Your task to perform on an android device: turn off priority inbox in the gmail app Image 0: 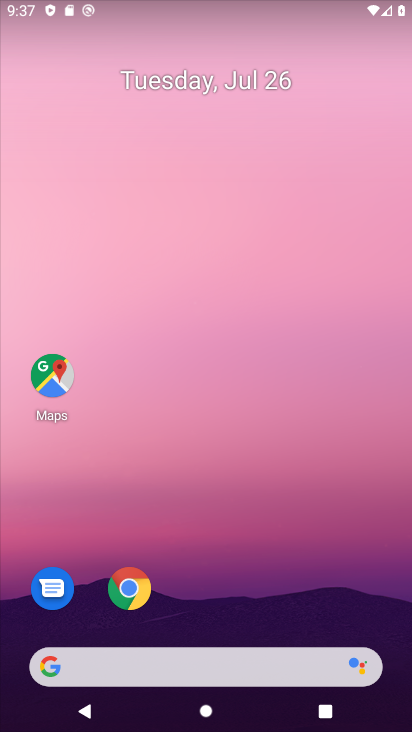
Step 0: drag from (203, 619) to (251, 69)
Your task to perform on an android device: turn off priority inbox in the gmail app Image 1: 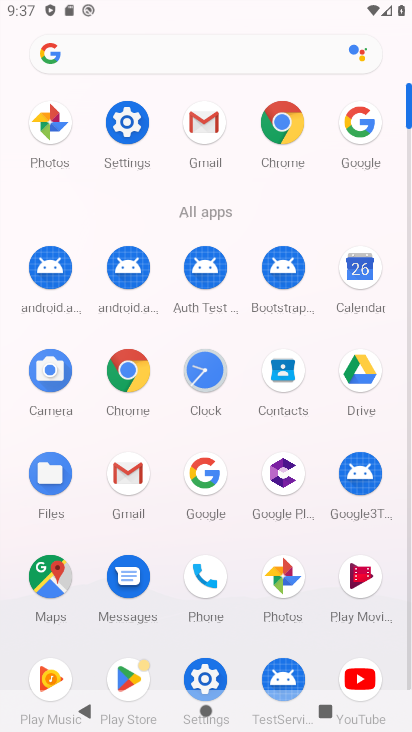
Step 1: click (209, 125)
Your task to perform on an android device: turn off priority inbox in the gmail app Image 2: 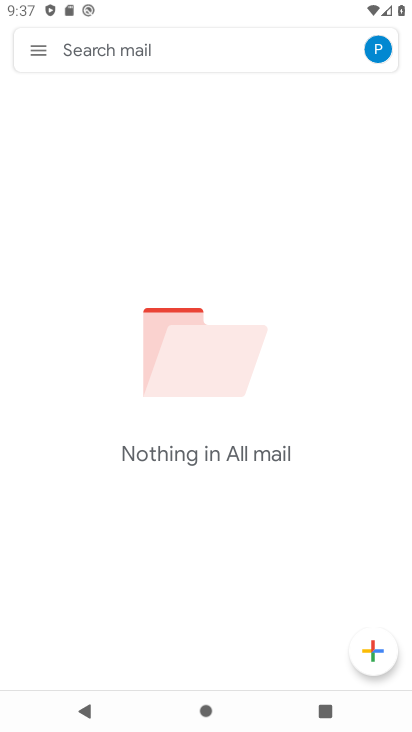
Step 2: click (27, 43)
Your task to perform on an android device: turn off priority inbox in the gmail app Image 3: 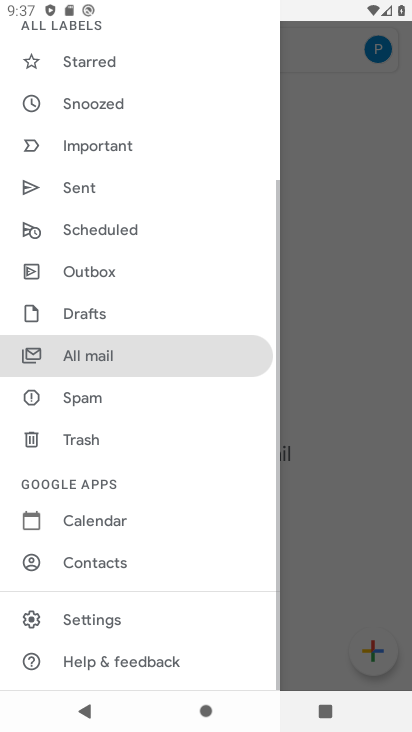
Step 3: click (117, 619)
Your task to perform on an android device: turn off priority inbox in the gmail app Image 4: 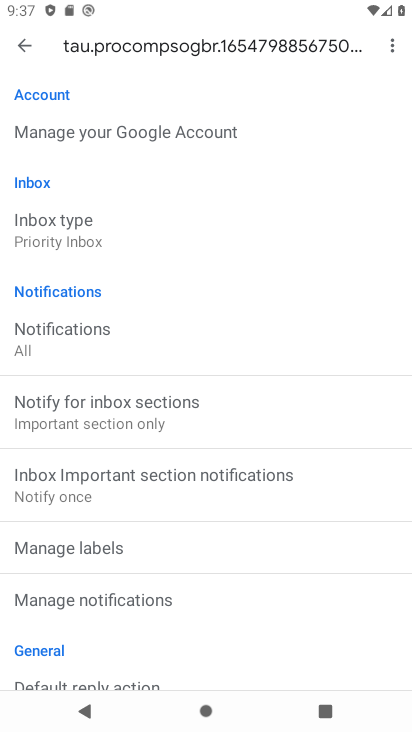
Step 4: click (109, 231)
Your task to perform on an android device: turn off priority inbox in the gmail app Image 5: 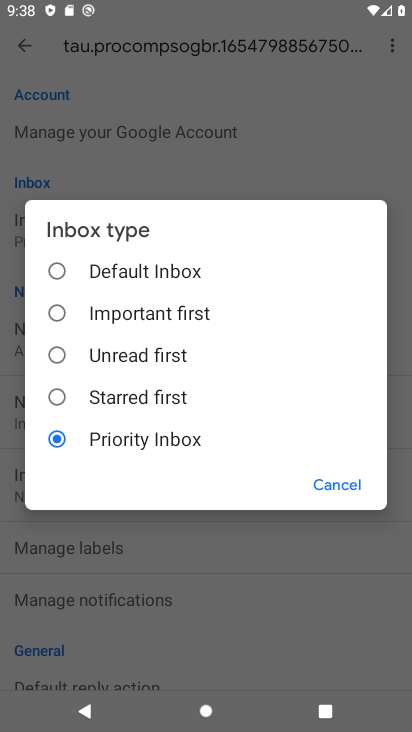
Step 5: click (69, 268)
Your task to perform on an android device: turn off priority inbox in the gmail app Image 6: 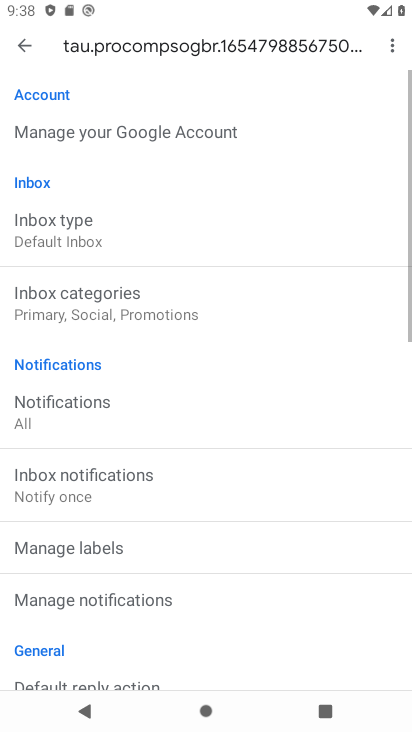
Step 6: task complete